Your task to perform on an android device: Open Chrome and go to settings Image 0: 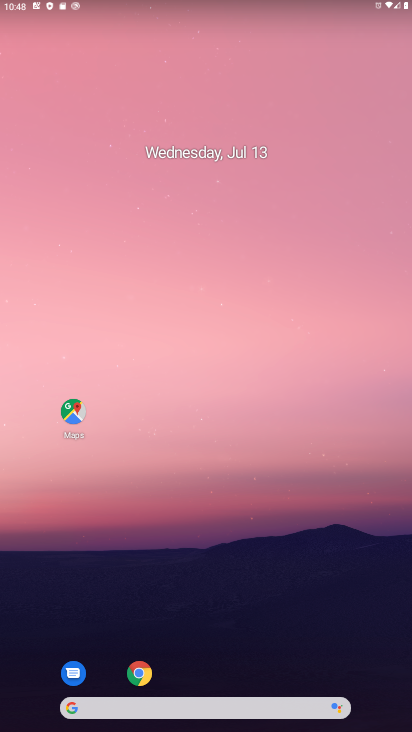
Step 0: click (143, 672)
Your task to perform on an android device: Open Chrome and go to settings Image 1: 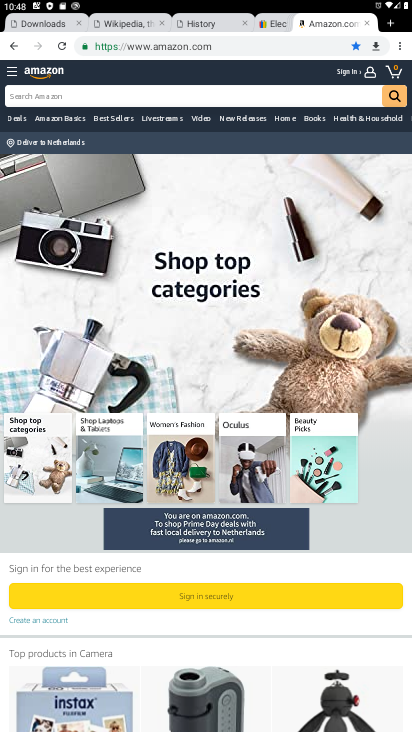
Step 1: click (384, 147)
Your task to perform on an android device: Open Chrome and go to settings Image 2: 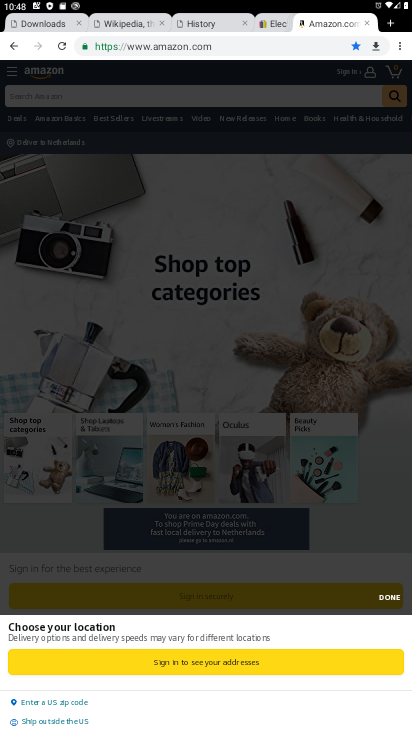
Step 2: click (405, 44)
Your task to perform on an android device: Open Chrome and go to settings Image 3: 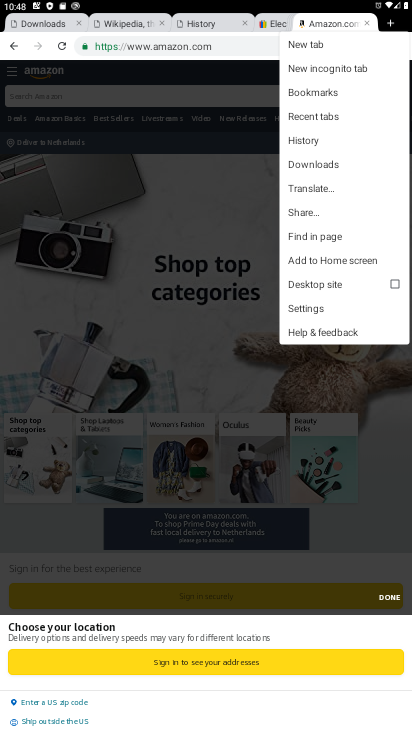
Step 3: click (298, 310)
Your task to perform on an android device: Open Chrome and go to settings Image 4: 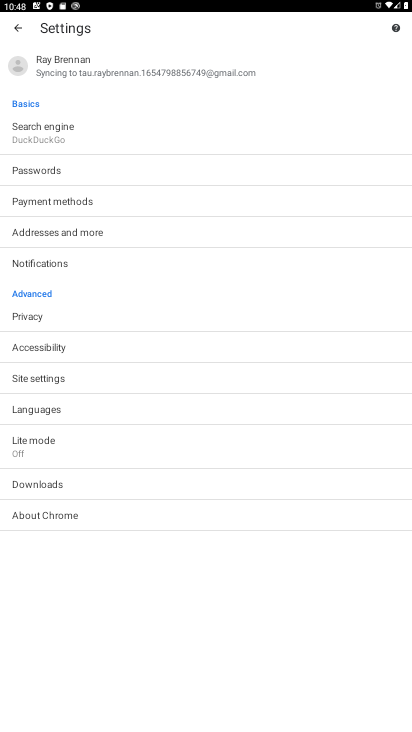
Step 4: task complete